Your task to perform on an android device: turn on notifications settings in the gmail app Image 0: 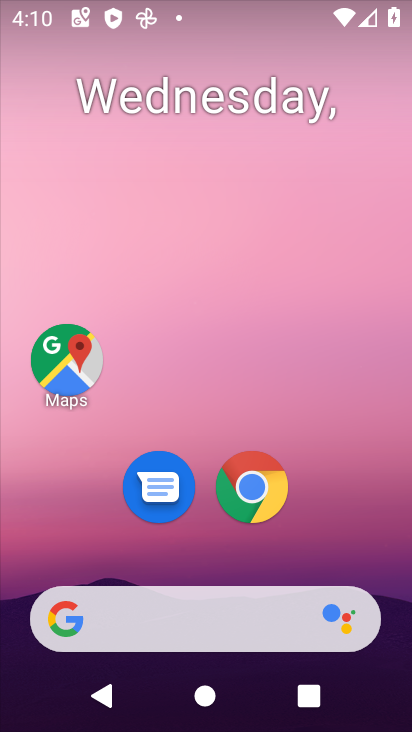
Step 0: drag from (380, 563) to (388, 163)
Your task to perform on an android device: turn on notifications settings in the gmail app Image 1: 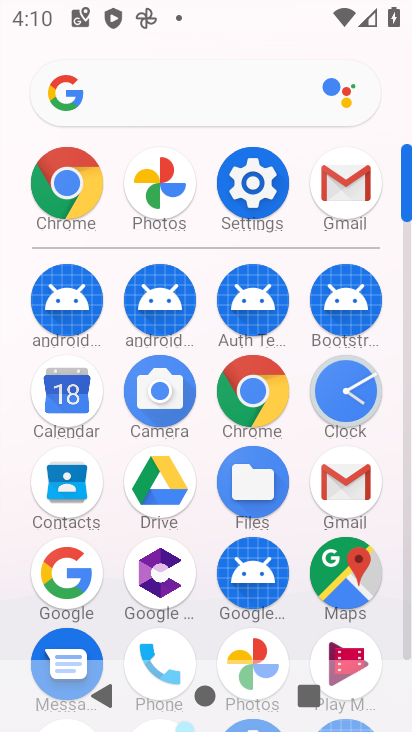
Step 1: click (361, 484)
Your task to perform on an android device: turn on notifications settings in the gmail app Image 2: 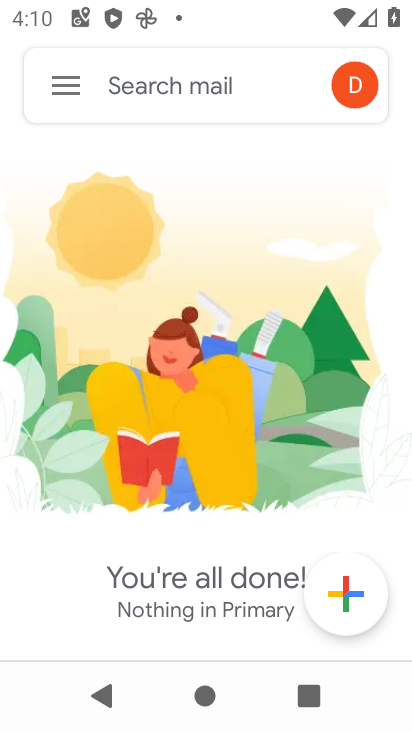
Step 2: click (80, 96)
Your task to perform on an android device: turn on notifications settings in the gmail app Image 3: 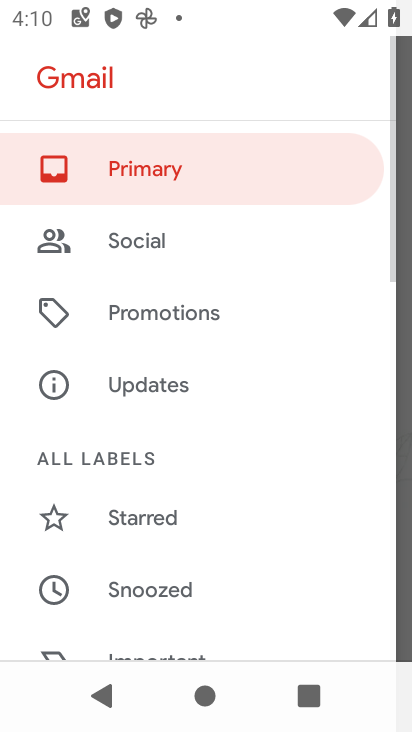
Step 3: drag from (306, 455) to (306, 400)
Your task to perform on an android device: turn on notifications settings in the gmail app Image 4: 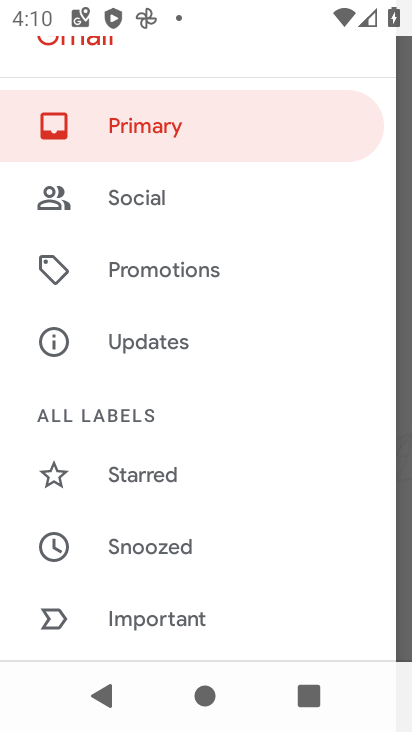
Step 4: drag from (331, 519) to (334, 406)
Your task to perform on an android device: turn on notifications settings in the gmail app Image 5: 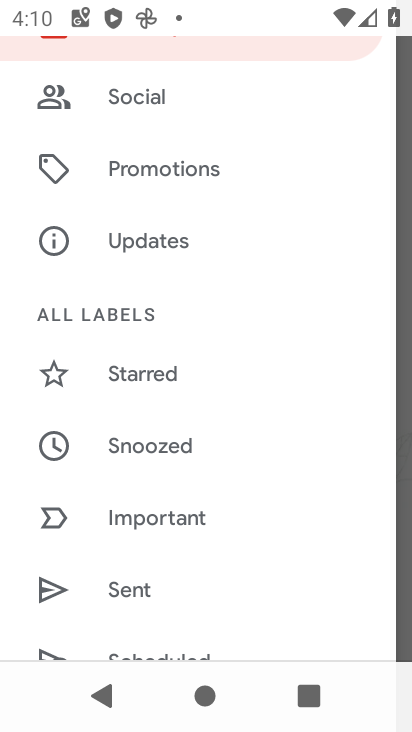
Step 5: drag from (325, 509) to (328, 408)
Your task to perform on an android device: turn on notifications settings in the gmail app Image 6: 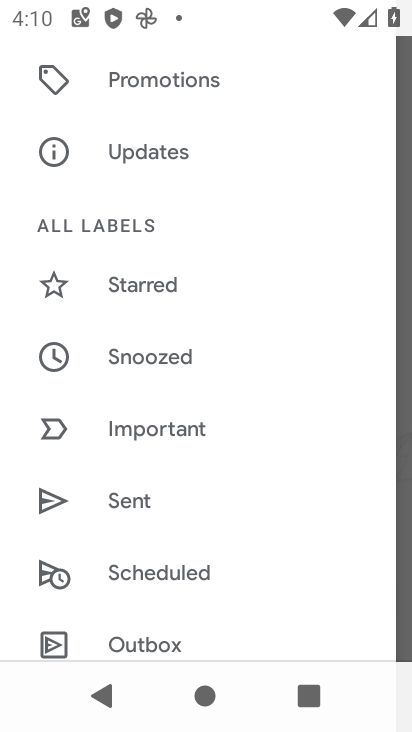
Step 6: drag from (317, 538) to (310, 432)
Your task to perform on an android device: turn on notifications settings in the gmail app Image 7: 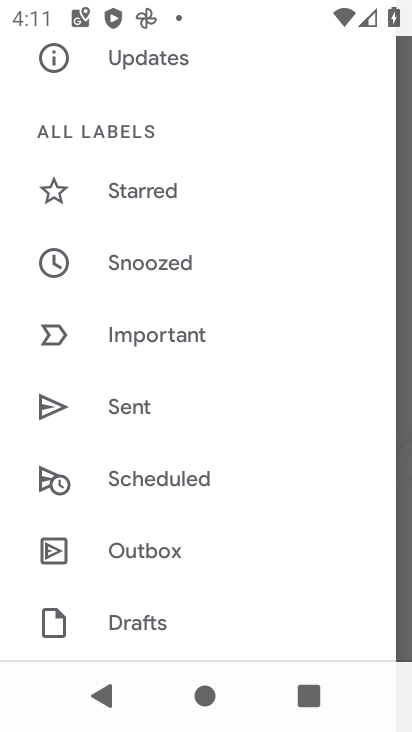
Step 7: drag from (313, 575) to (316, 462)
Your task to perform on an android device: turn on notifications settings in the gmail app Image 8: 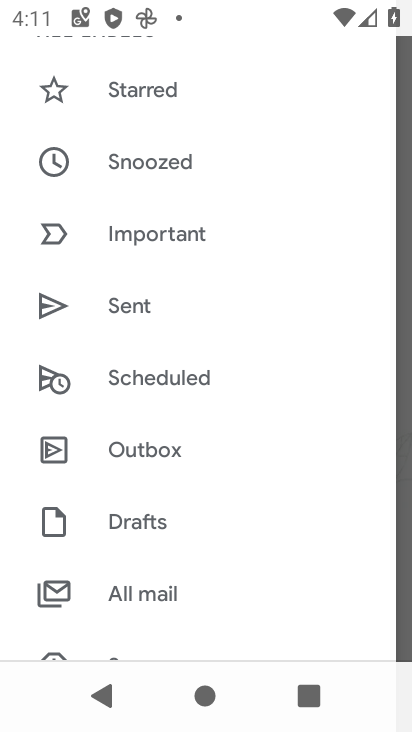
Step 8: drag from (325, 568) to (326, 483)
Your task to perform on an android device: turn on notifications settings in the gmail app Image 9: 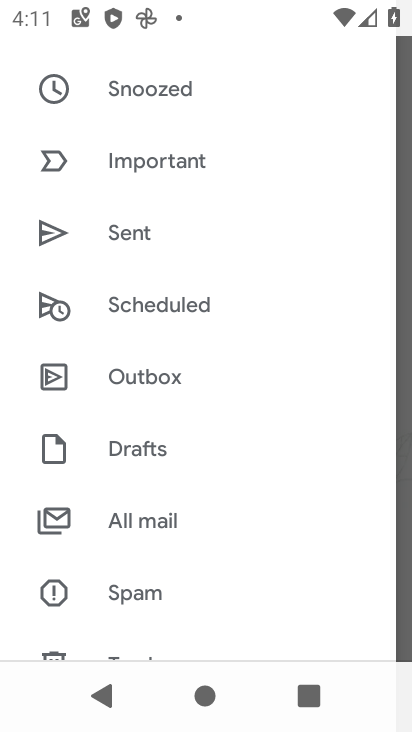
Step 9: drag from (334, 587) to (340, 496)
Your task to perform on an android device: turn on notifications settings in the gmail app Image 10: 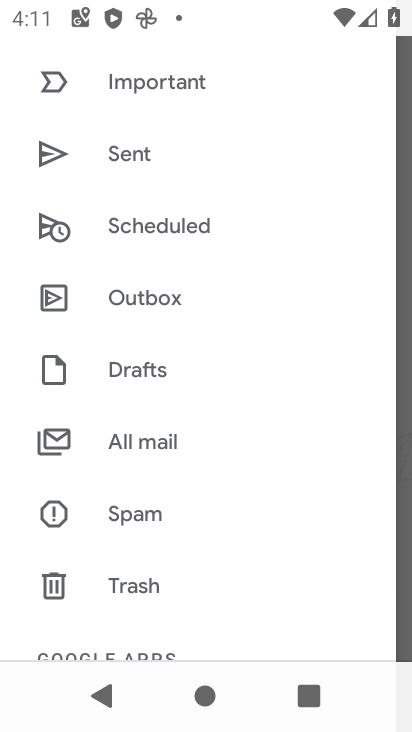
Step 10: drag from (331, 590) to (330, 504)
Your task to perform on an android device: turn on notifications settings in the gmail app Image 11: 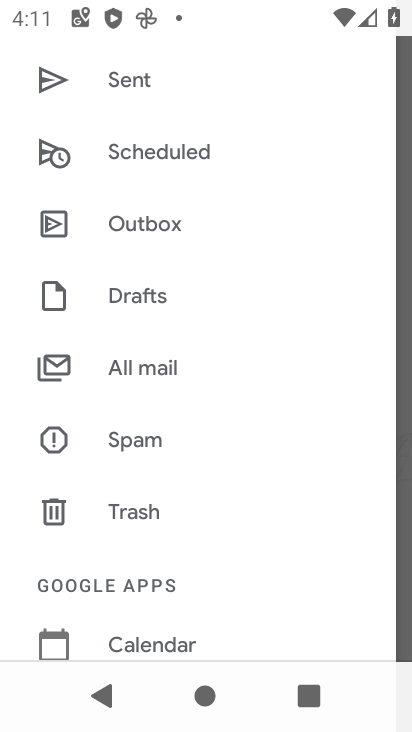
Step 11: drag from (339, 600) to (348, 497)
Your task to perform on an android device: turn on notifications settings in the gmail app Image 12: 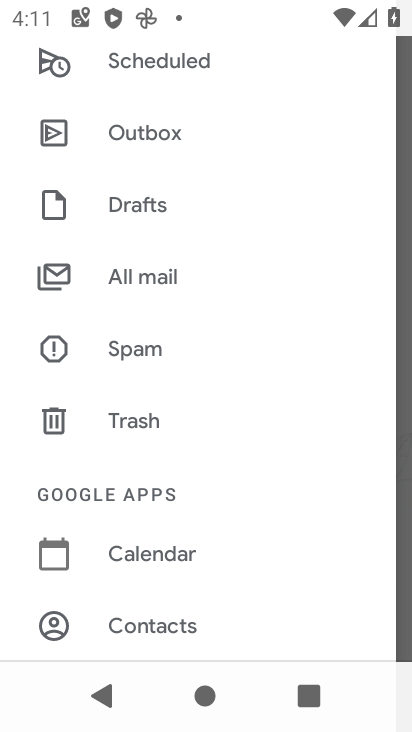
Step 12: drag from (341, 614) to (344, 497)
Your task to perform on an android device: turn on notifications settings in the gmail app Image 13: 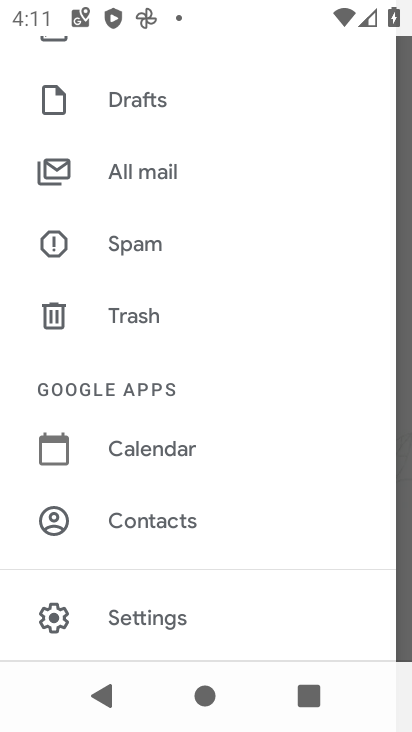
Step 13: drag from (339, 595) to (345, 539)
Your task to perform on an android device: turn on notifications settings in the gmail app Image 14: 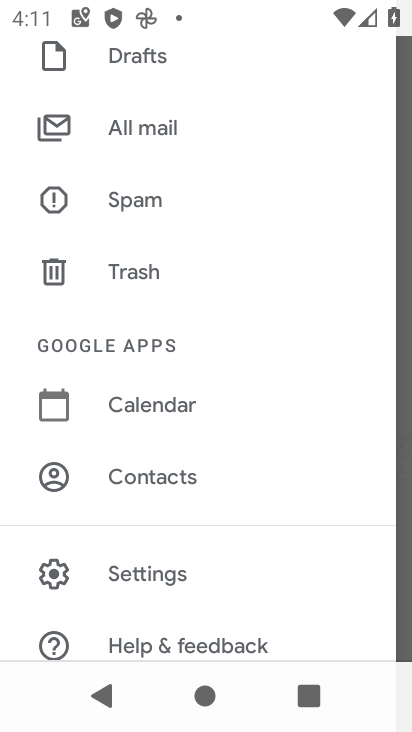
Step 14: drag from (341, 602) to (346, 539)
Your task to perform on an android device: turn on notifications settings in the gmail app Image 15: 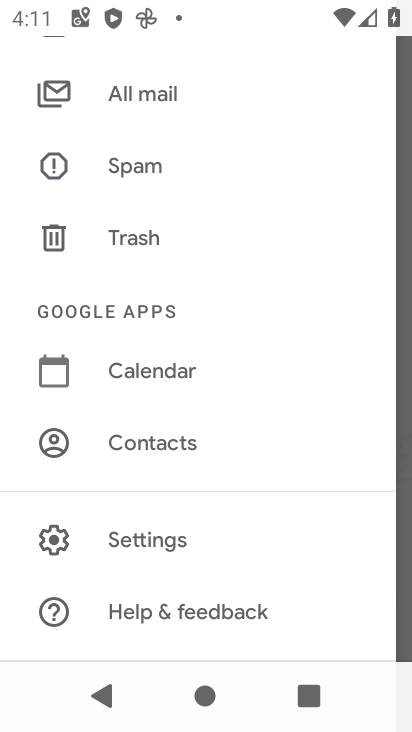
Step 15: drag from (347, 608) to (348, 521)
Your task to perform on an android device: turn on notifications settings in the gmail app Image 16: 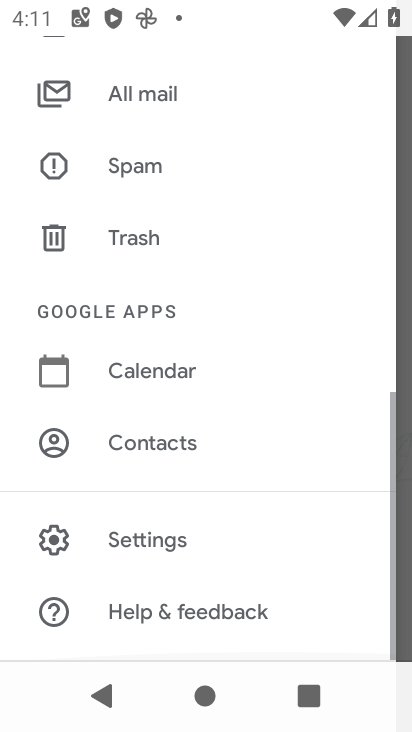
Step 16: click (265, 554)
Your task to perform on an android device: turn on notifications settings in the gmail app Image 17: 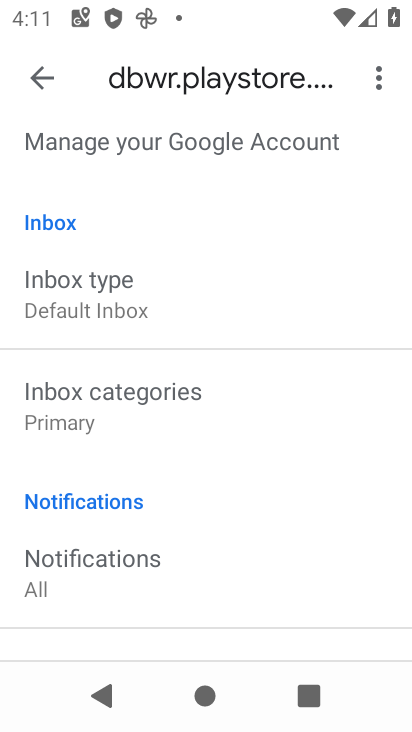
Step 17: drag from (289, 476) to (297, 391)
Your task to perform on an android device: turn on notifications settings in the gmail app Image 18: 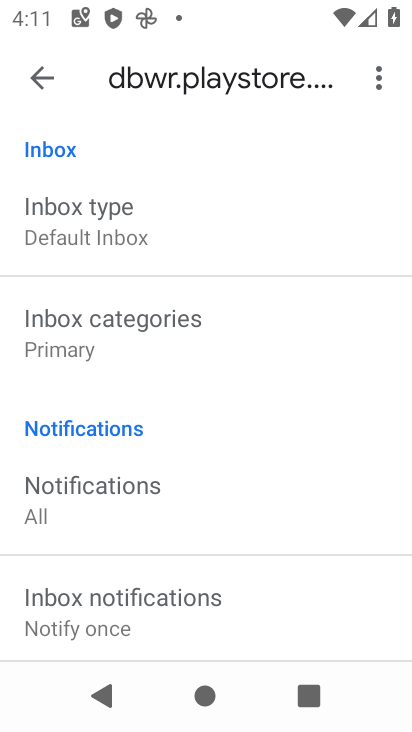
Step 18: drag from (297, 559) to (299, 440)
Your task to perform on an android device: turn on notifications settings in the gmail app Image 19: 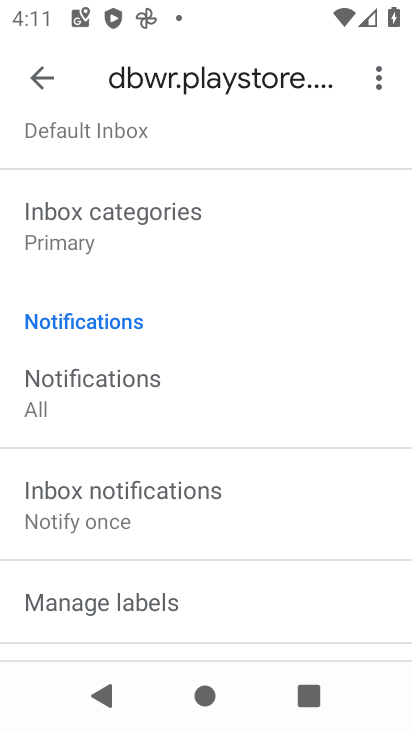
Step 19: drag from (291, 582) to (301, 487)
Your task to perform on an android device: turn on notifications settings in the gmail app Image 20: 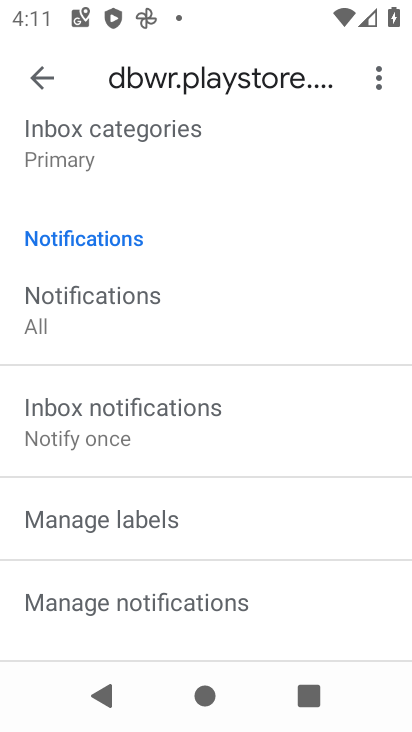
Step 20: drag from (298, 588) to (312, 483)
Your task to perform on an android device: turn on notifications settings in the gmail app Image 21: 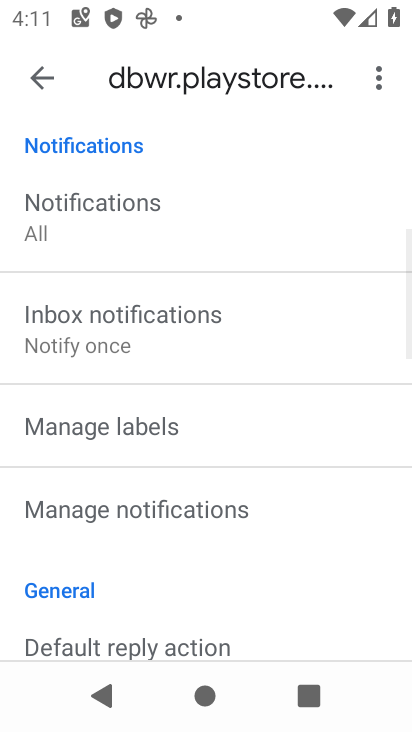
Step 21: click (298, 539)
Your task to perform on an android device: turn on notifications settings in the gmail app Image 22: 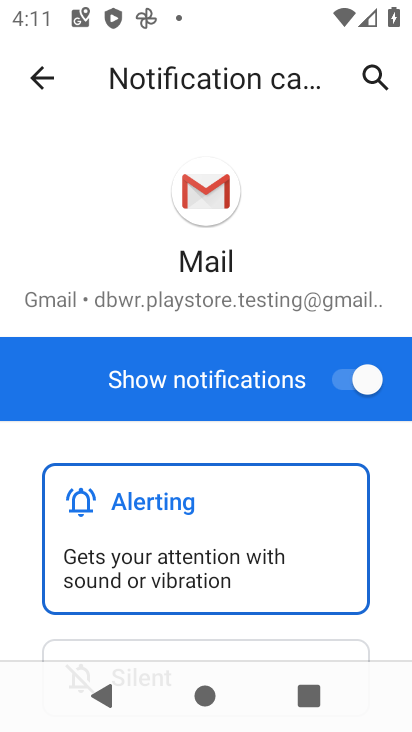
Step 22: task complete